Your task to perform on an android device: Go to network settings Image 0: 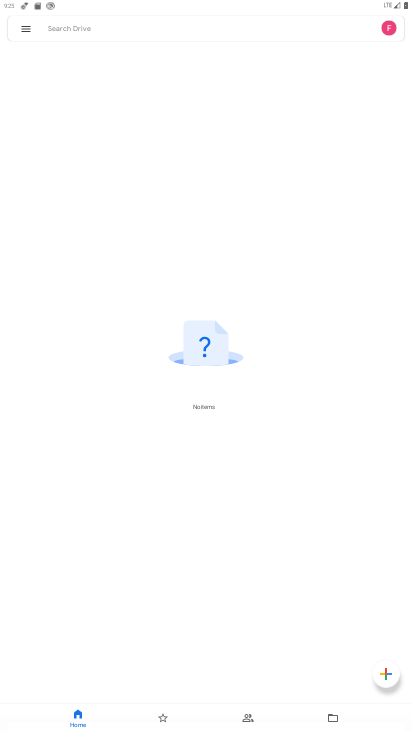
Step 0: press home button
Your task to perform on an android device: Go to network settings Image 1: 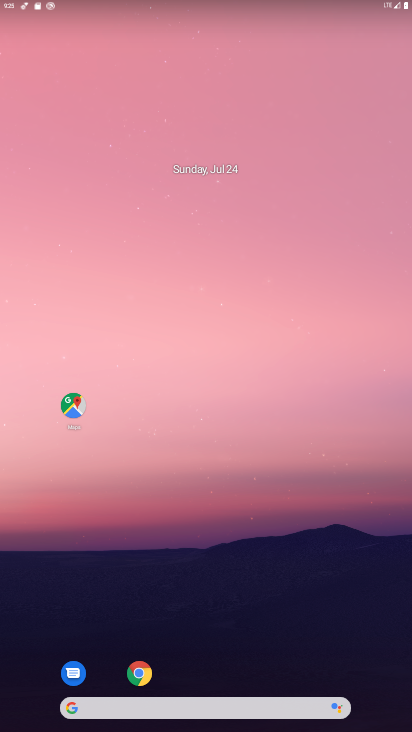
Step 1: drag from (213, 685) to (221, 92)
Your task to perform on an android device: Go to network settings Image 2: 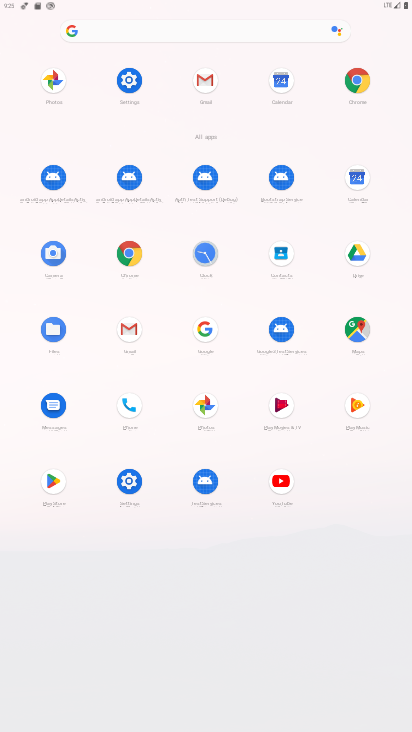
Step 2: click (132, 492)
Your task to perform on an android device: Go to network settings Image 3: 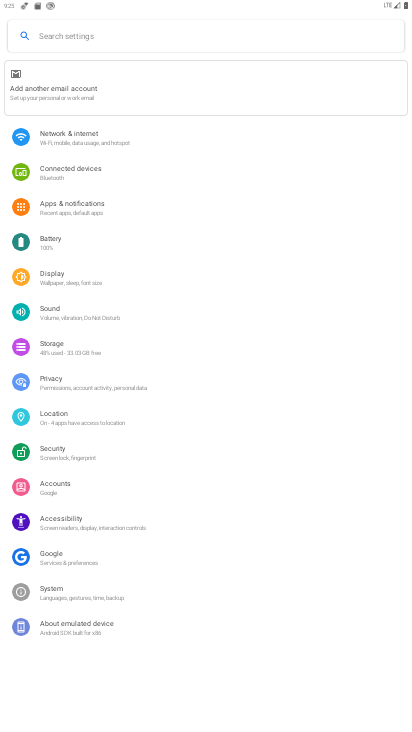
Step 3: click (97, 138)
Your task to perform on an android device: Go to network settings Image 4: 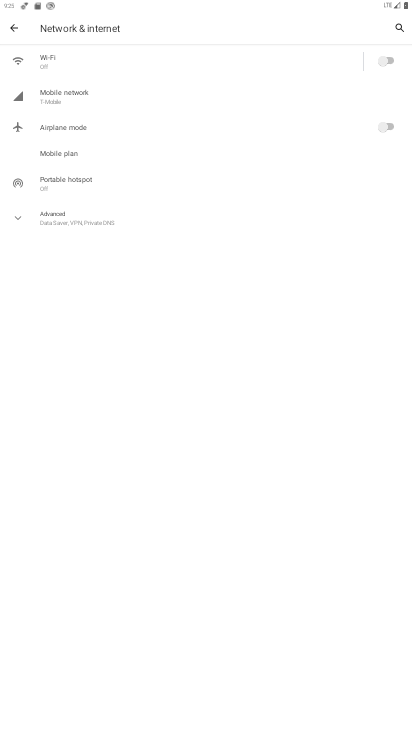
Step 4: task complete